Your task to perform on an android device: What's the weather today? Image 0: 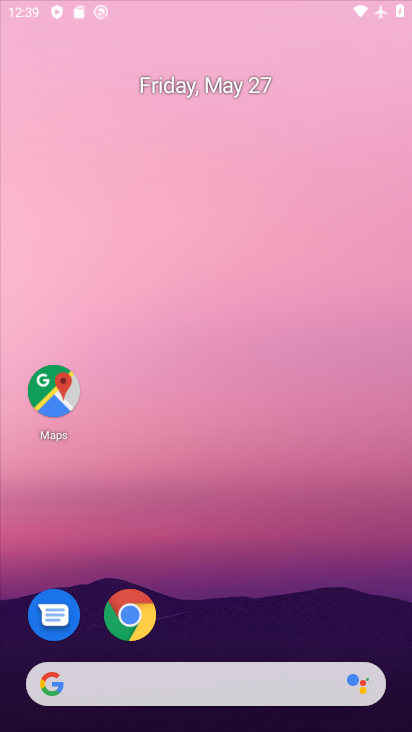
Step 0: press home button
Your task to perform on an android device: What's the weather today? Image 1: 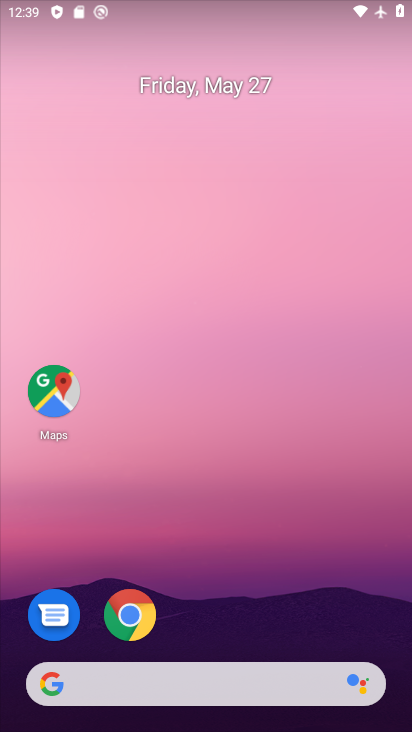
Step 1: click (47, 681)
Your task to perform on an android device: What's the weather today? Image 2: 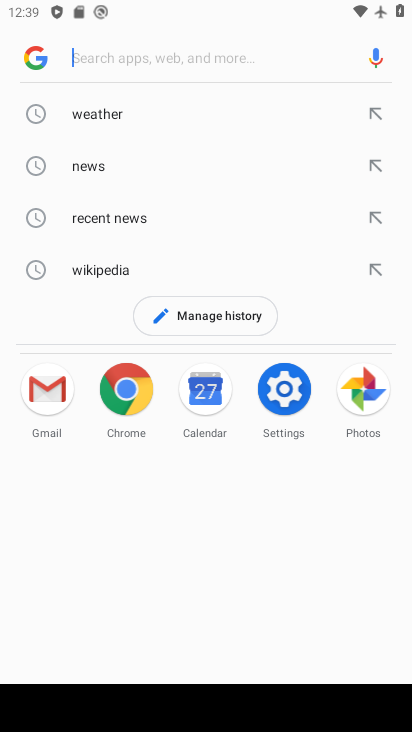
Step 2: type "What's the weather today?"
Your task to perform on an android device: What's the weather today? Image 3: 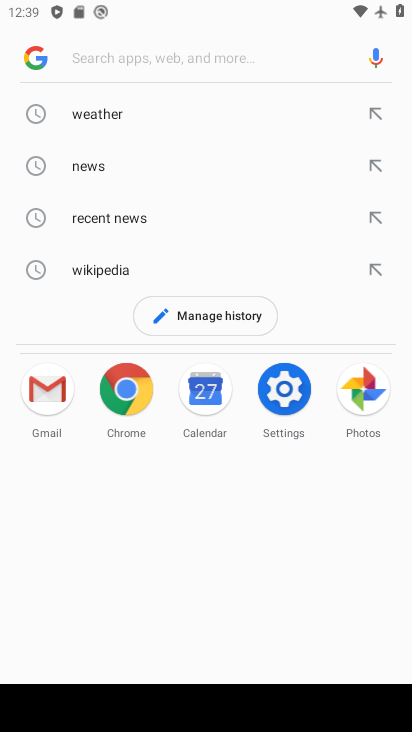
Step 3: click (197, 50)
Your task to perform on an android device: What's the weather today? Image 4: 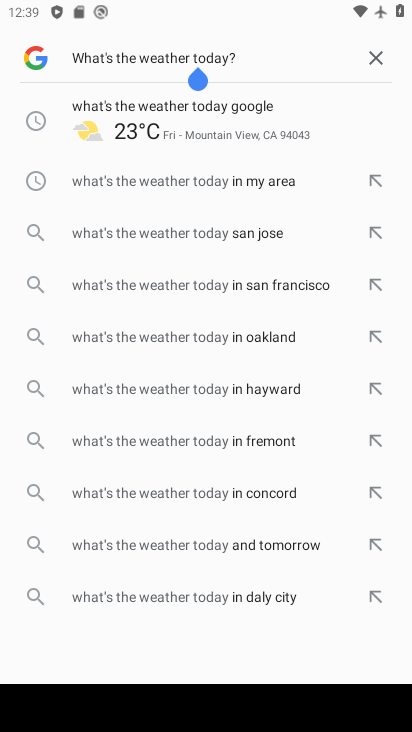
Step 4: click (195, 111)
Your task to perform on an android device: What's the weather today? Image 5: 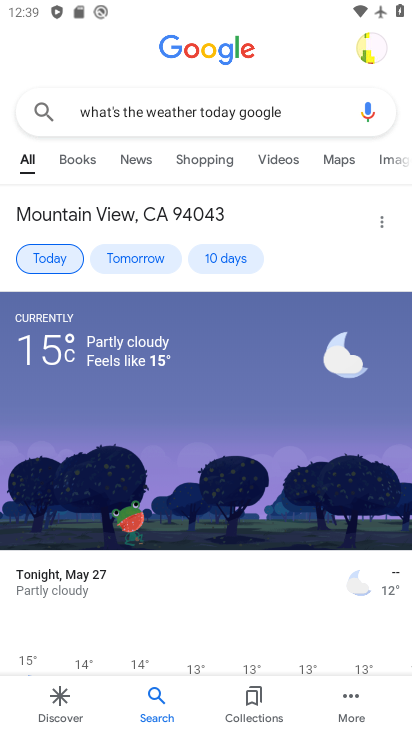
Step 5: task complete